Your task to perform on an android device: toggle improve location accuracy Image 0: 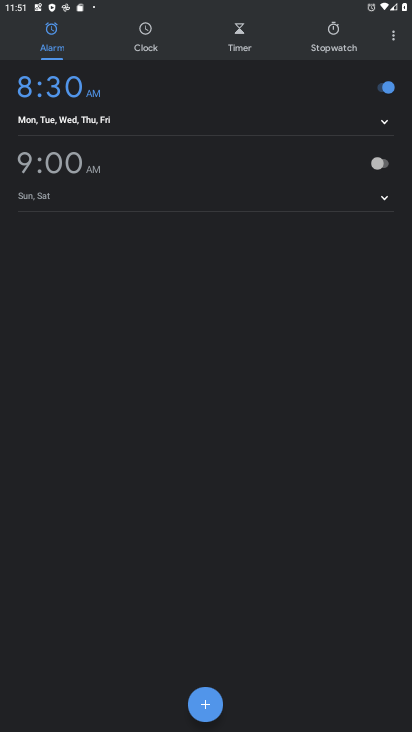
Step 0: press home button
Your task to perform on an android device: toggle improve location accuracy Image 1: 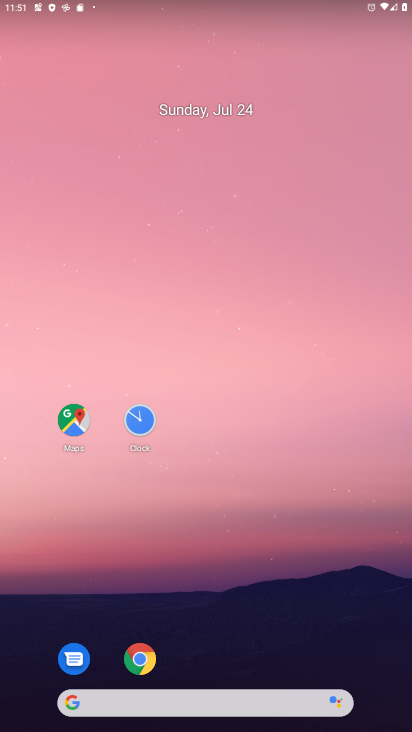
Step 1: drag from (404, 713) to (326, 2)
Your task to perform on an android device: toggle improve location accuracy Image 2: 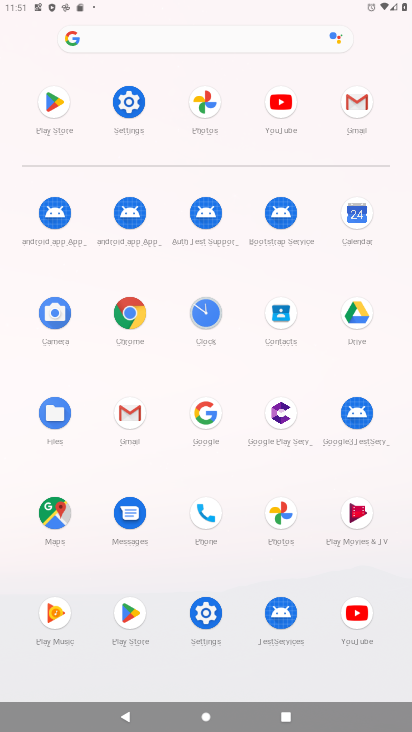
Step 2: drag from (136, 97) to (238, 418)
Your task to perform on an android device: toggle improve location accuracy Image 3: 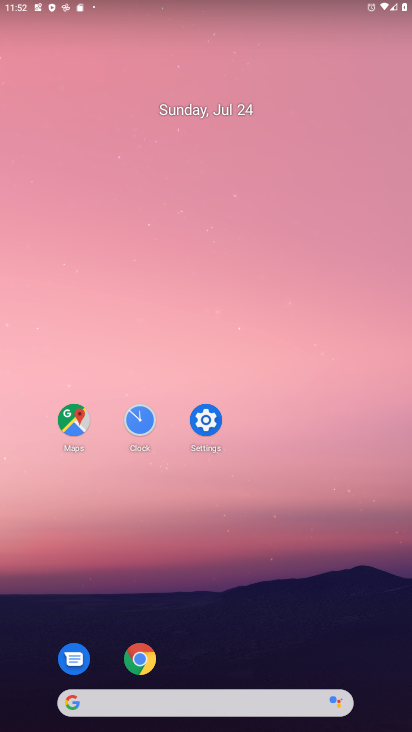
Step 3: click (210, 424)
Your task to perform on an android device: toggle improve location accuracy Image 4: 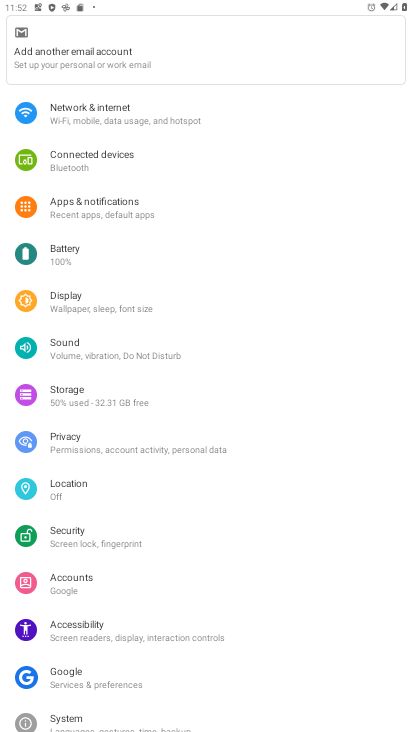
Step 4: click (60, 487)
Your task to perform on an android device: toggle improve location accuracy Image 5: 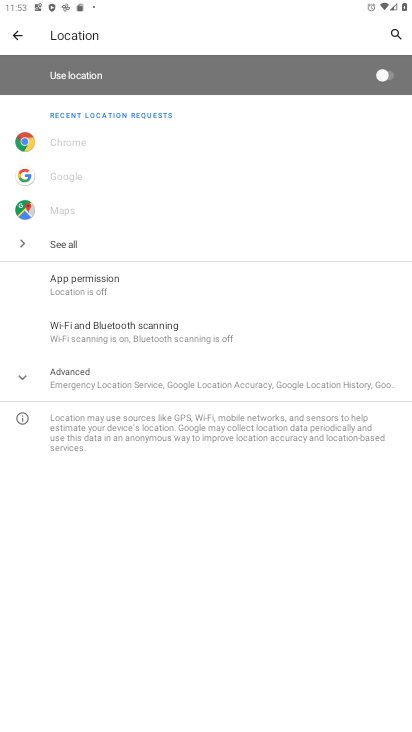
Step 5: click (17, 378)
Your task to perform on an android device: toggle improve location accuracy Image 6: 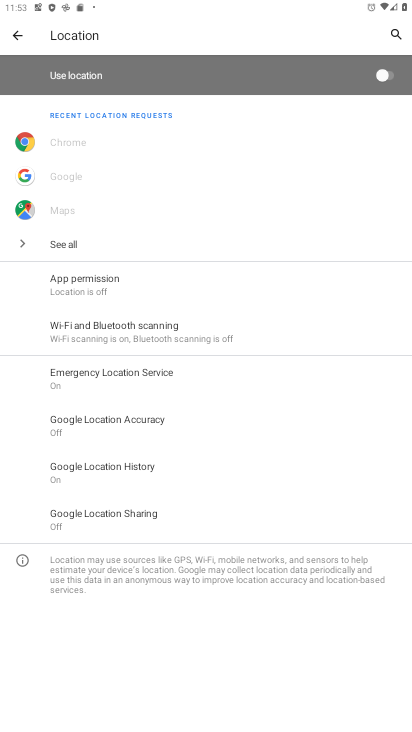
Step 6: click (119, 422)
Your task to perform on an android device: toggle improve location accuracy Image 7: 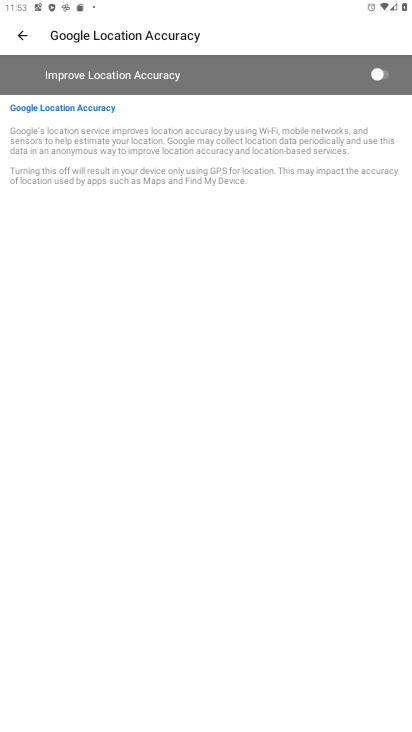
Step 7: click (376, 74)
Your task to perform on an android device: toggle improve location accuracy Image 8: 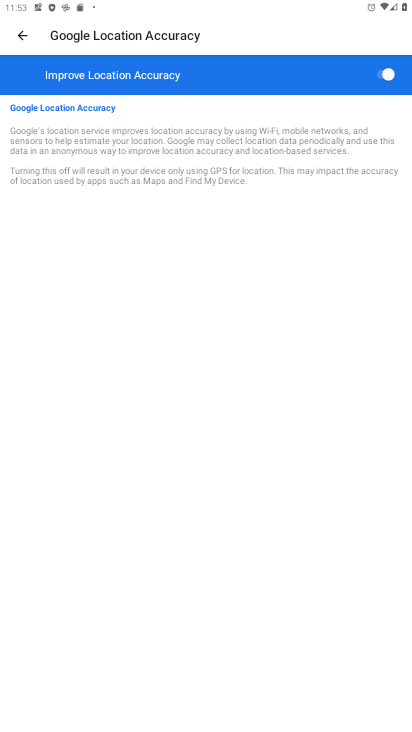
Step 8: task complete